Your task to perform on an android device: Clear the shopping cart on bestbuy. Search for "usb-c to usb-b" on bestbuy, select the first entry, add it to the cart, then select checkout. Image 0: 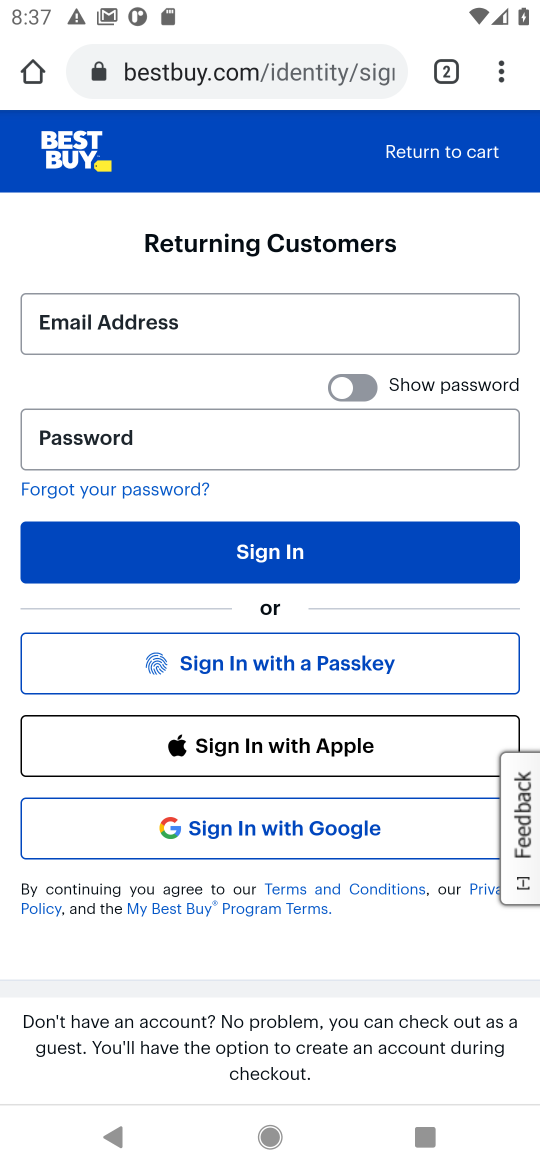
Step 0: press back button
Your task to perform on an android device: Clear the shopping cart on bestbuy. Search for "usb-c to usb-b" on bestbuy, select the first entry, add it to the cart, then select checkout. Image 1: 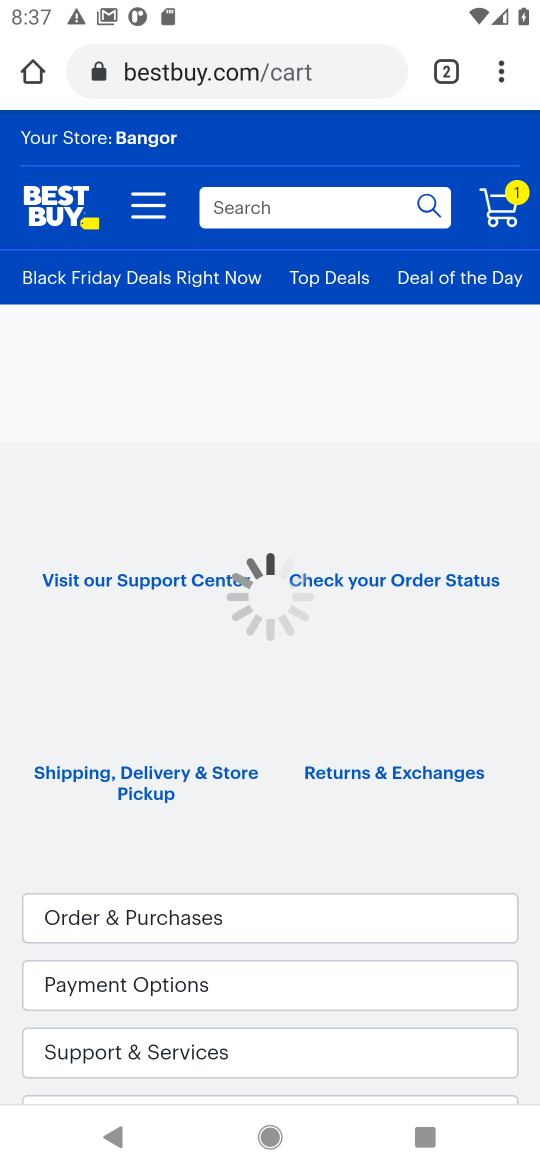
Step 1: click (486, 192)
Your task to perform on an android device: Clear the shopping cart on bestbuy. Search for "usb-c to usb-b" on bestbuy, select the first entry, add it to the cart, then select checkout. Image 2: 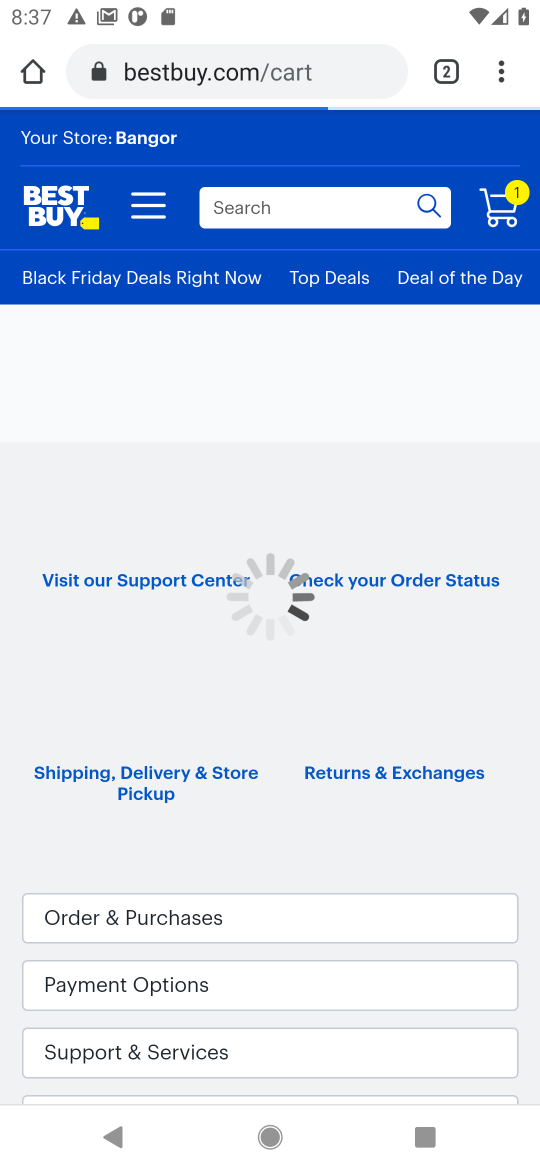
Step 2: drag from (188, 660) to (188, 433)
Your task to perform on an android device: Clear the shopping cart on bestbuy. Search for "usb-c to usb-b" on bestbuy, select the first entry, add it to the cart, then select checkout. Image 3: 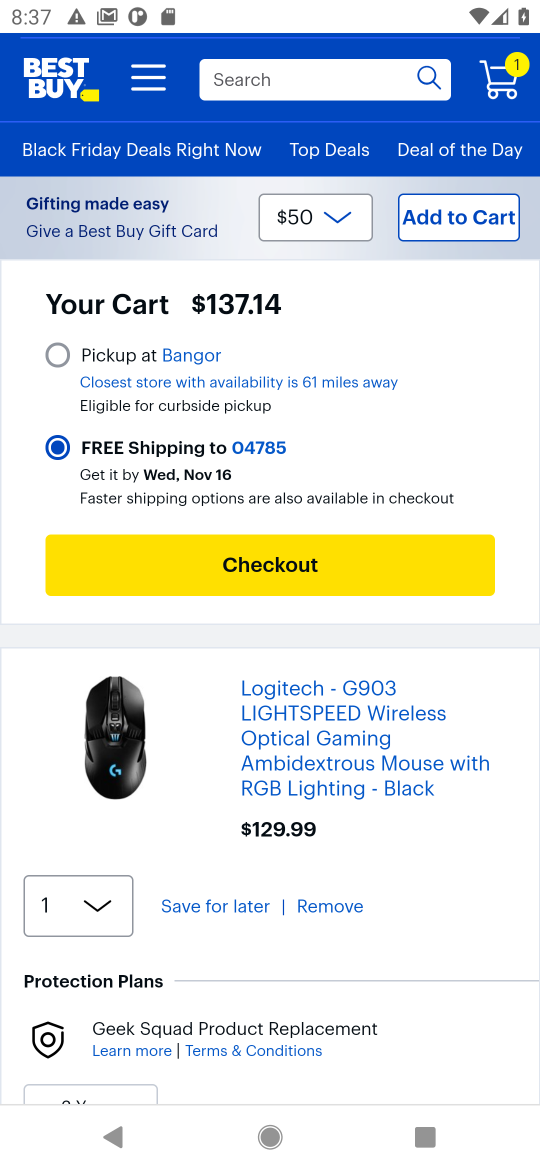
Step 3: click (324, 910)
Your task to perform on an android device: Clear the shopping cart on bestbuy. Search for "usb-c to usb-b" on bestbuy, select the first entry, add it to the cart, then select checkout. Image 4: 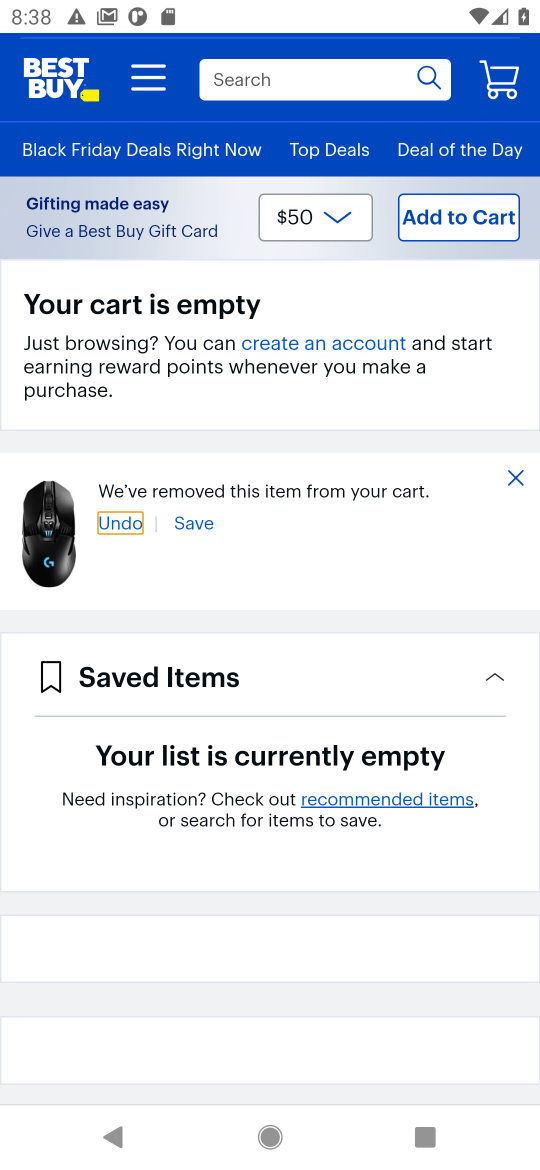
Step 4: click (278, 95)
Your task to perform on an android device: Clear the shopping cart on bestbuy. Search for "usb-c to usb-b" on bestbuy, select the first entry, add it to the cart, then select checkout. Image 5: 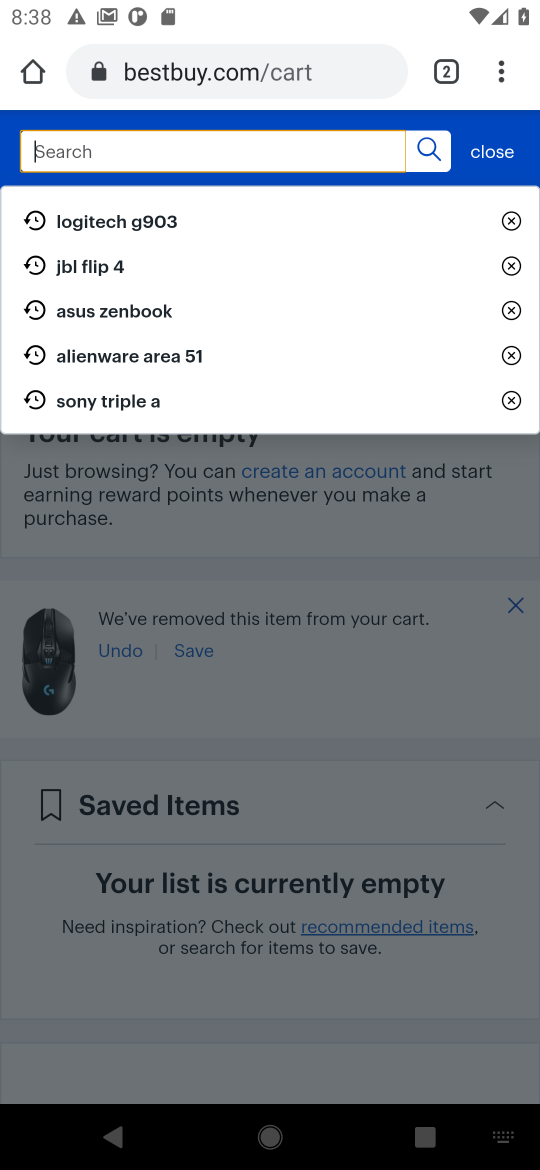
Step 5: type "usb-c to usb-b"
Your task to perform on an android device: Clear the shopping cart on bestbuy. Search for "usb-c to usb-b" on bestbuy, select the first entry, add it to the cart, then select checkout. Image 6: 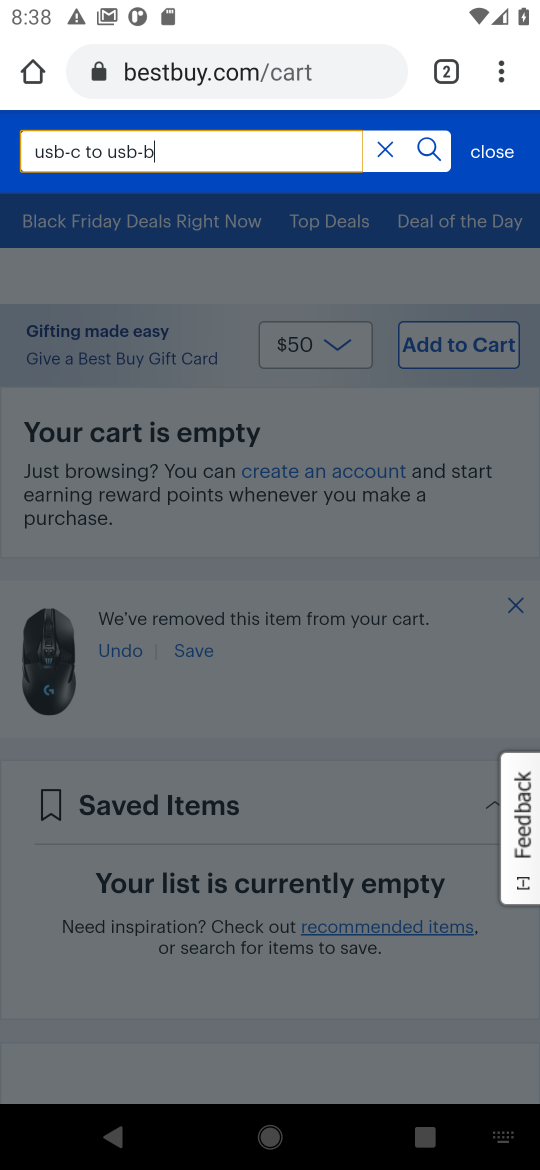
Step 6: click (421, 153)
Your task to perform on an android device: Clear the shopping cart on bestbuy. Search for "usb-c to usb-b" on bestbuy, select the first entry, add it to the cart, then select checkout. Image 7: 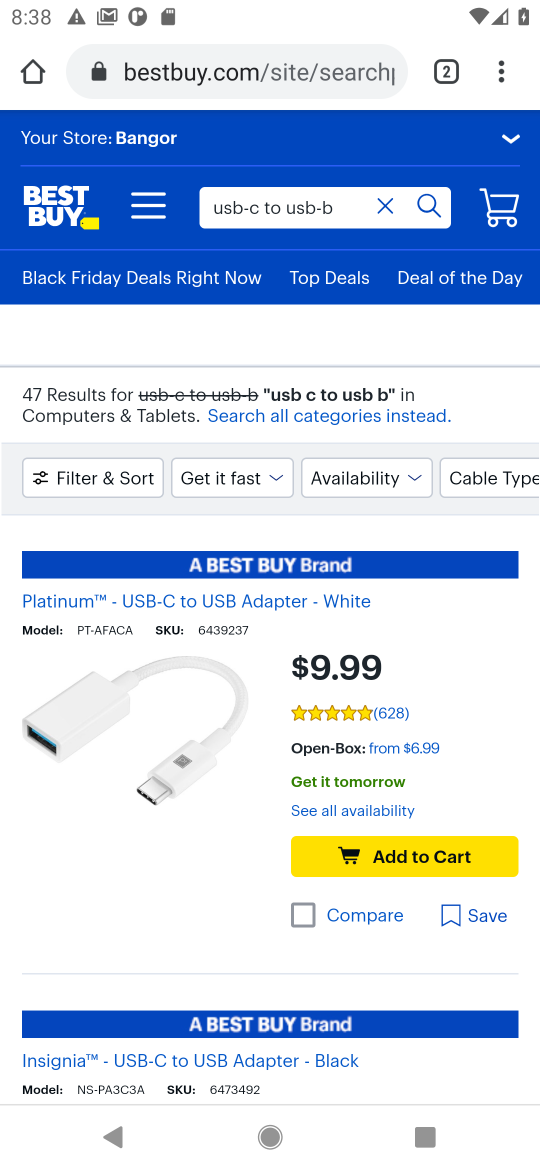
Step 7: drag from (111, 845) to (105, 702)
Your task to perform on an android device: Clear the shopping cart on bestbuy. Search for "usb-c to usb-b" on bestbuy, select the first entry, add it to the cart, then select checkout. Image 8: 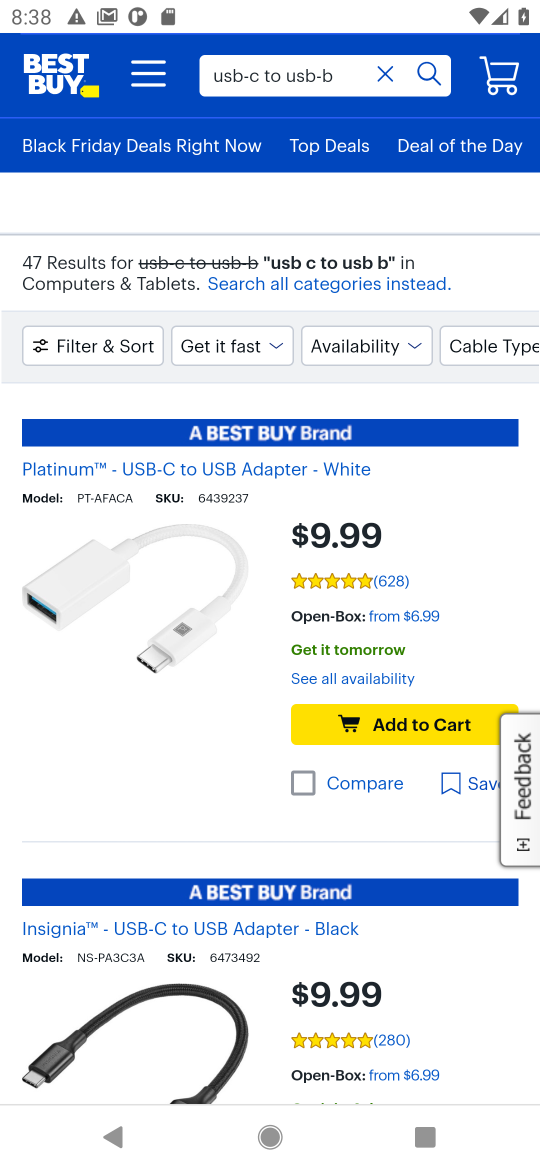
Step 8: click (258, 283)
Your task to perform on an android device: Clear the shopping cart on bestbuy. Search for "usb-c to usb-b" on bestbuy, select the first entry, add it to the cart, then select checkout. Image 9: 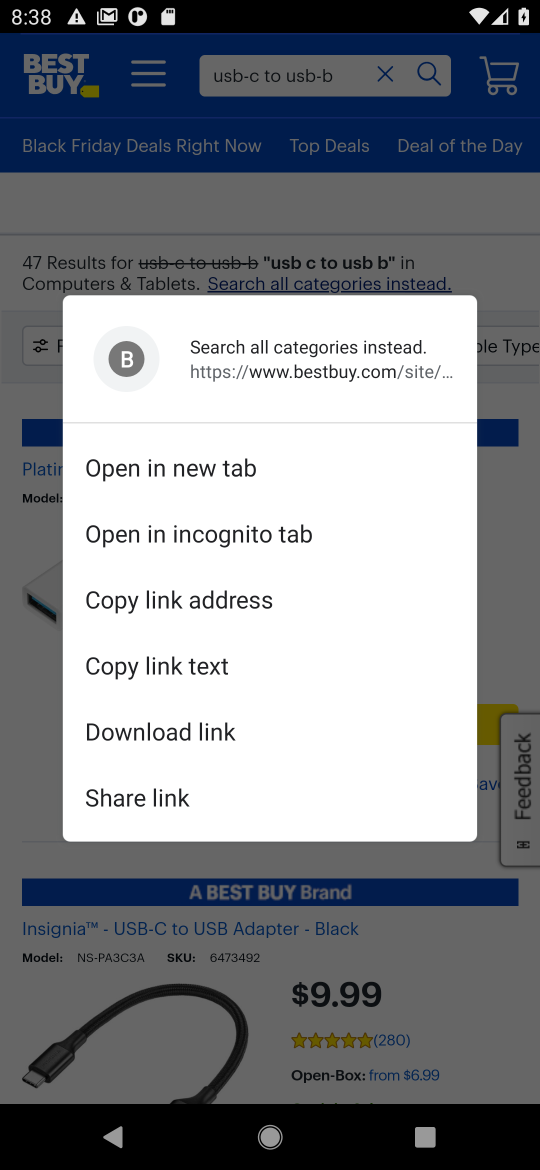
Step 9: click (477, 279)
Your task to perform on an android device: Clear the shopping cart on bestbuy. Search for "usb-c to usb-b" on bestbuy, select the first entry, add it to the cart, then select checkout. Image 10: 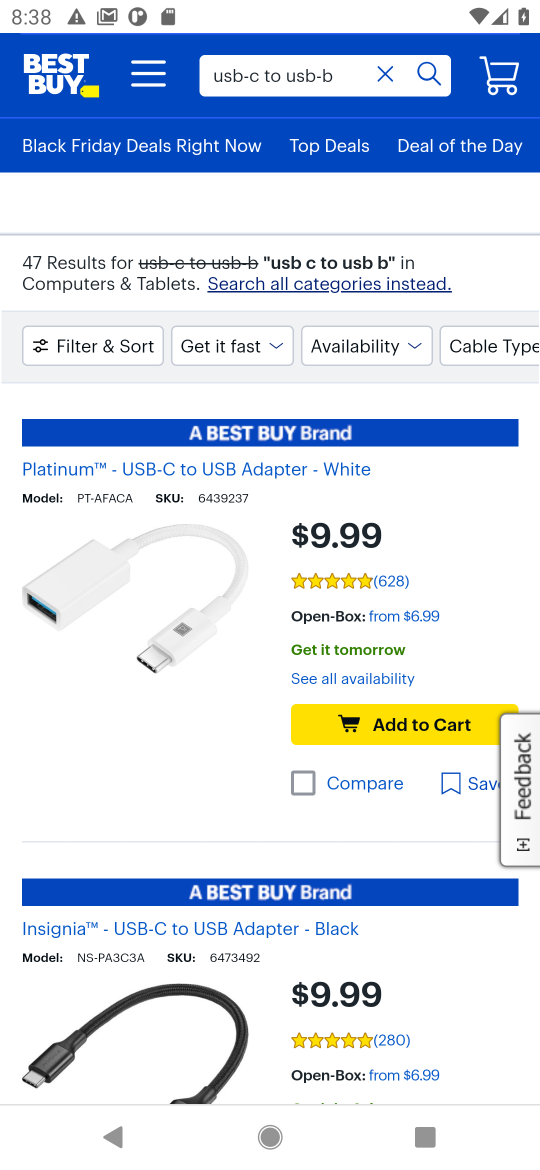
Step 10: click (413, 290)
Your task to perform on an android device: Clear the shopping cart on bestbuy. Search for "usb-c to usb-b" on bestbuy, select the first entry, add it to the cart, then select checkout. Image 11: 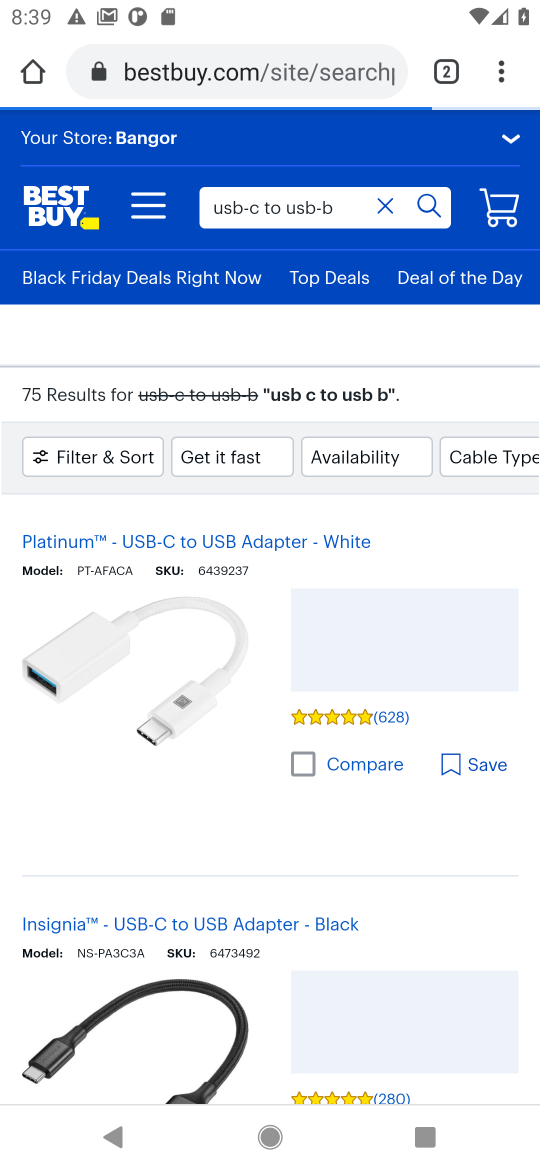
Step 11: task complete